Your task to perform on an android device: turn on the 12-hour format for clock Image 0: 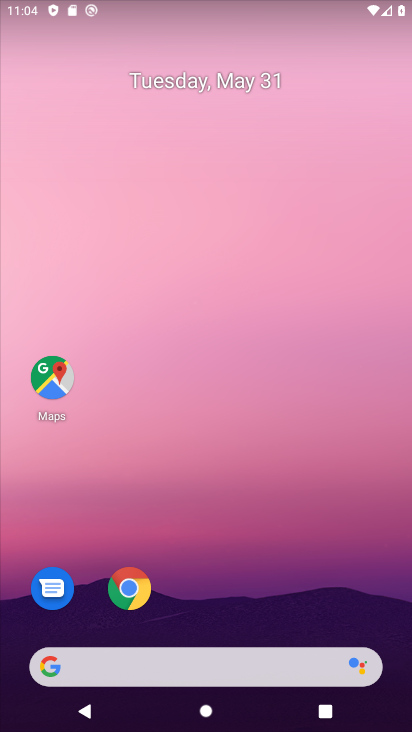
Step 0: drag from (229, 492) to (345, 134)
Your task to perform on an android device: turn on the 12-hour format for clock Image 1: 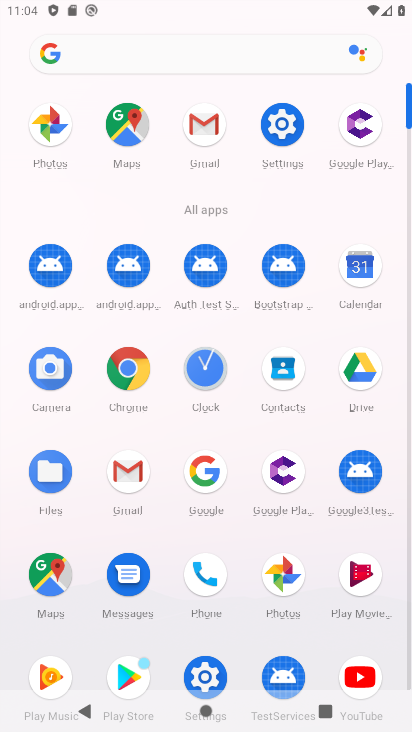
Step 1: click (209, 371)
Your task to perform on an android device: turn on the 12-hour format for clock Image 2: 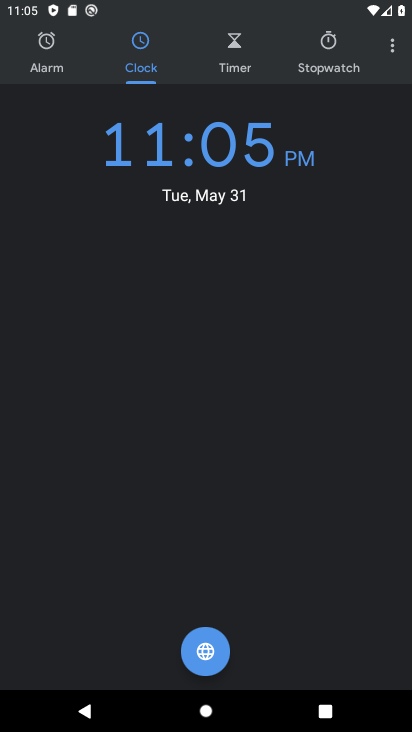
Step 2: click (397, 47)
Your task to perform on an android device: turn on the 12-hour format for clock Image 3: 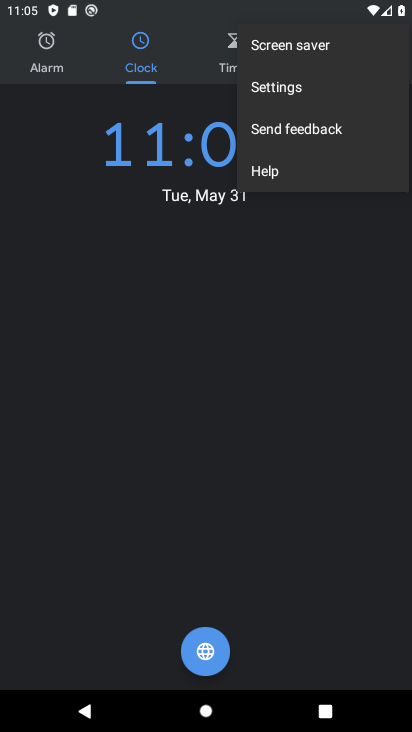
Step 3: click (330, 90)
Your task to perform on an android device: turn on the 12-hour format for clock Image 4: 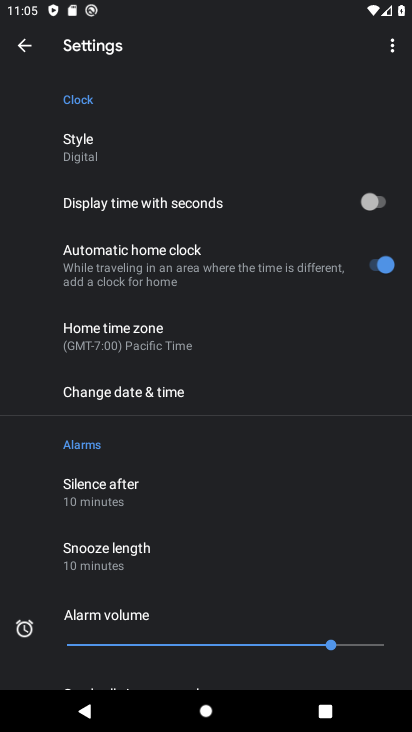
Step 4: click (155, 398)
Your task to perform on an android device: turn on the 12-hour format for clock Image 5: 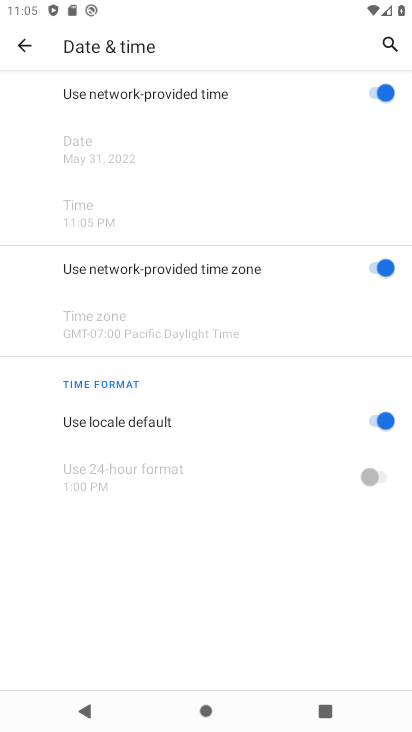
Step 5: task complete